Your task to perform on an android device: What is the recent news? Image 0: 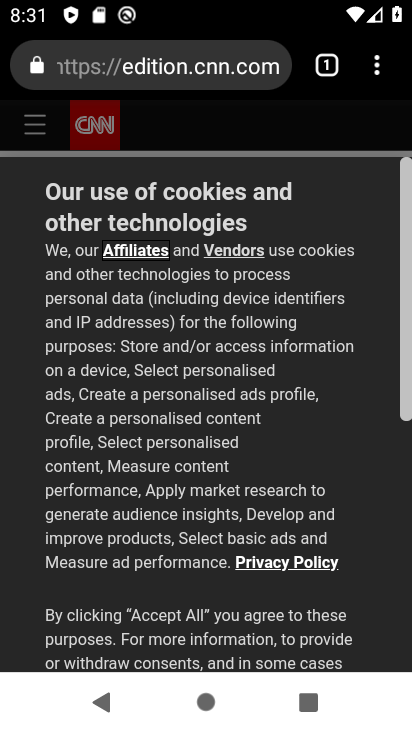
Step 0: press home button
Your task to perform on an android device: What is the recent news? Image 1: 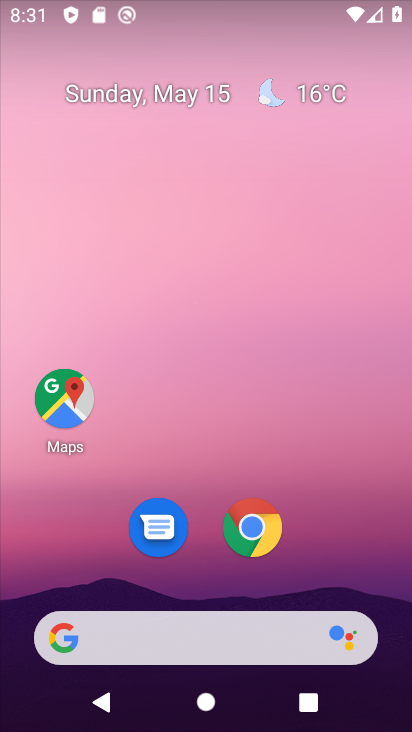
Step 1: click (123, 635)
Your task to perform on an android device: What is the recent news? Image 2: 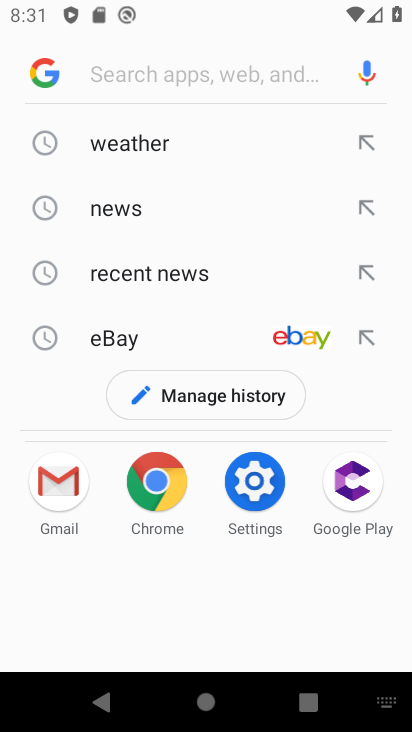
Step 2: click (161, 279)
Your task to perform on an android device: What is the recent news? Image 3: 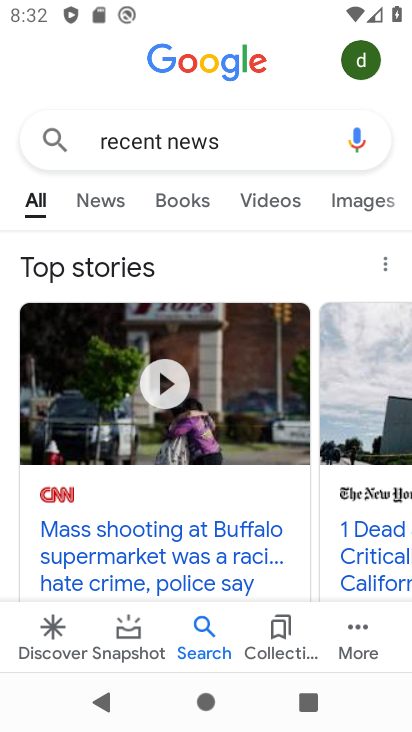
Step 3: click (95, 200)
Your task to perform on an android device: What is the recent news? Image 4: 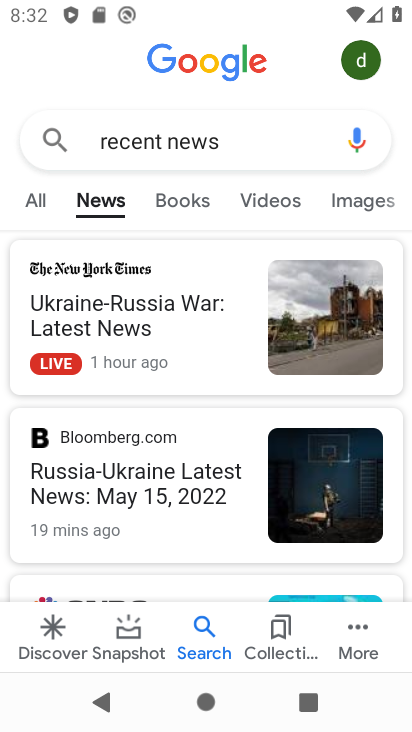
Step 4: click (116, 479)
Your task to perform on an android device: What is the recent news? Image 5: 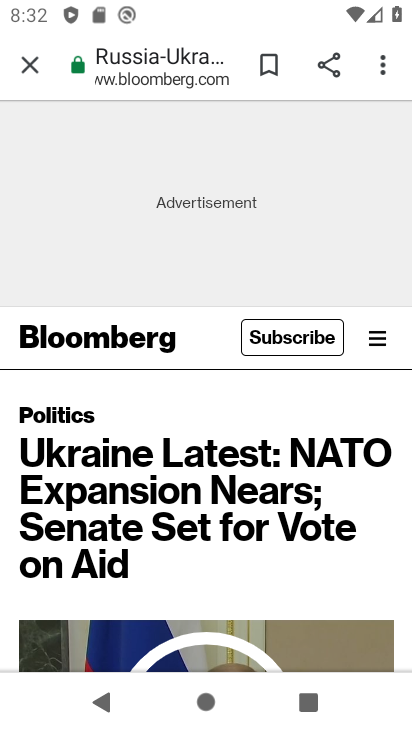
Step 5: task complete